Your task to perform on an android device: Go to Amazon Image 0: 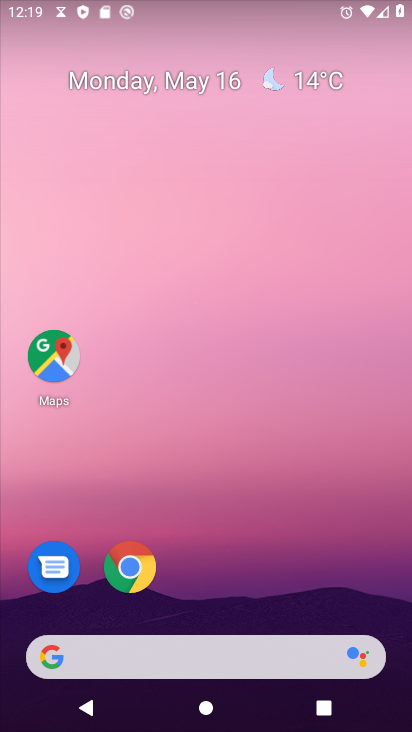
Step 0: click (139, 569)
Your task to perform on an android device: Go to Amazon Image 1: 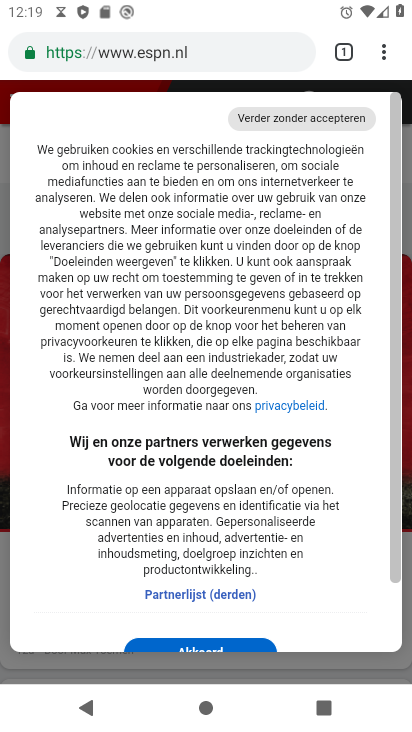
Step 1: click (151, 44)
Your task to perform on an android device: Go to Amazon Image 2: 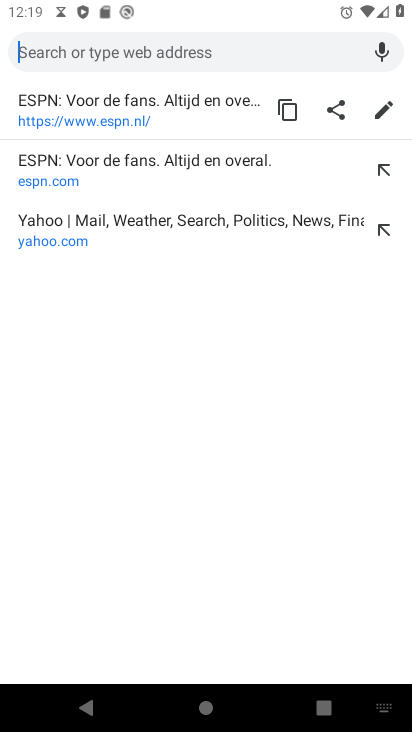
Step 2: type "amazon"
Your task to perform on an android device: Go to Amazon Image 3: 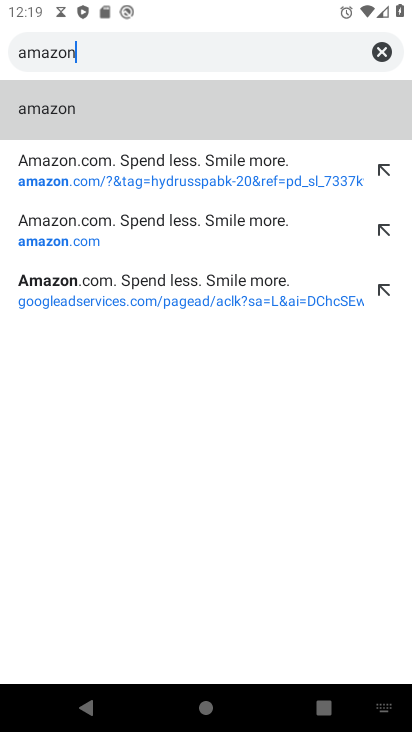
Step 3: click (76, 97)
Your task to perform on an android device: Go to Amazon Image 4: 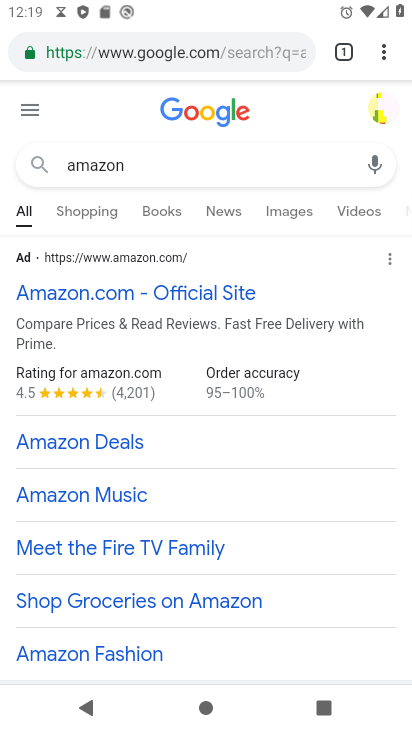
Step 4: click (134, 296)
Your task to perform on an android device: Go to Amazon Image 5: 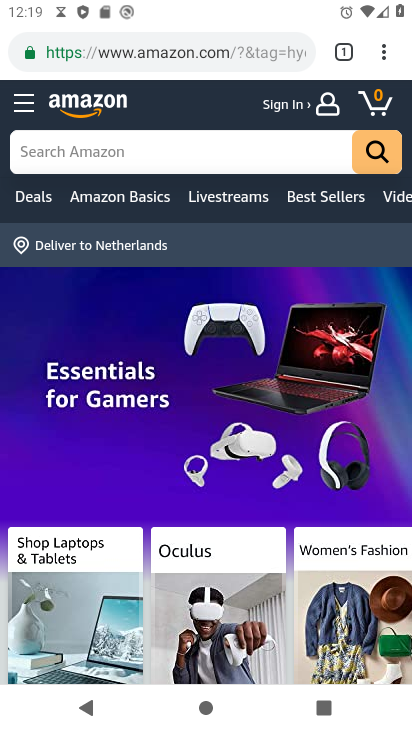
Step 5: task complete